Your task to perform on an android device: Open the stopwatch Image 0: 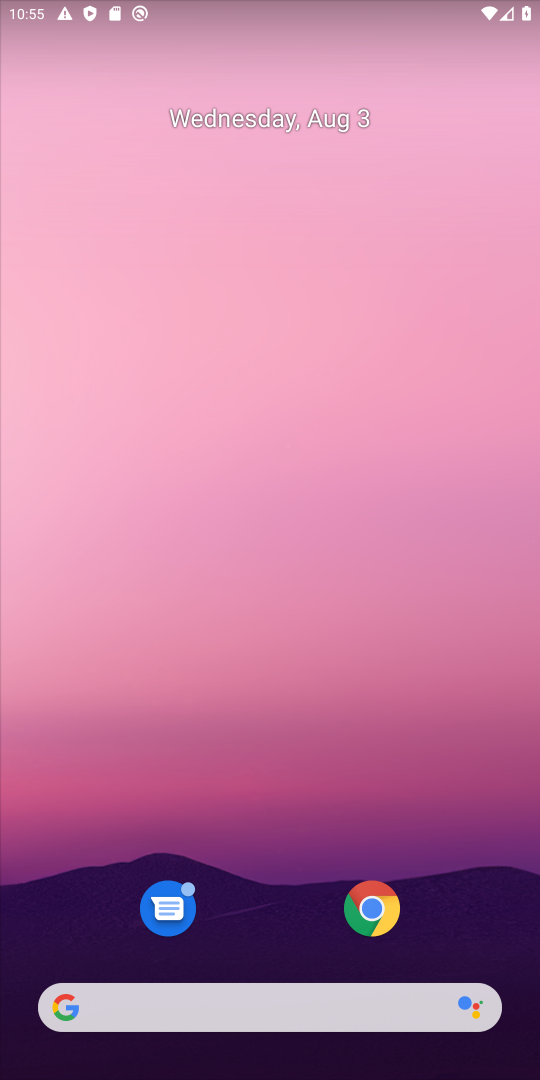
Step 0: drag from (389, 969) to (300, 136)
Your task to perform on an android device: Open the stopwatch Image 1: 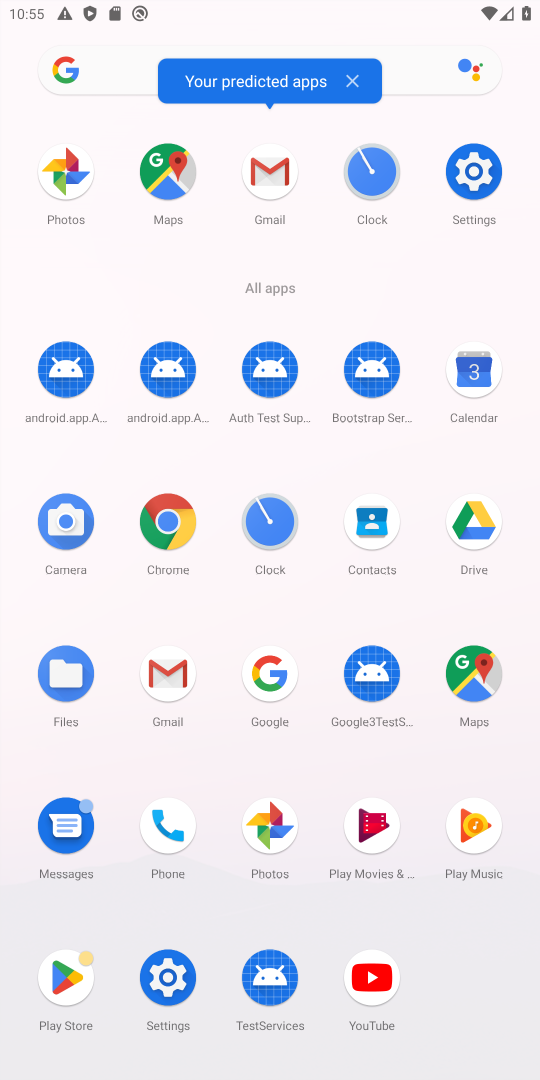
Step 1: click (277, 526)
Your task to perform on an android device: Open the stopwatch Image 2: 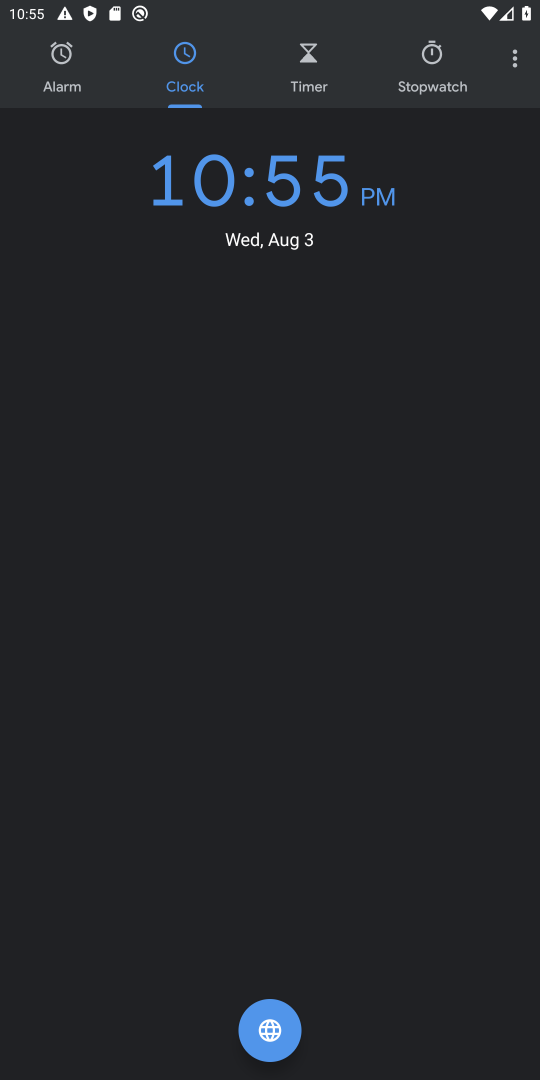
Step 2: click (420, 73)
Your task to perform on an android device: Open the stopwatch Image 3: 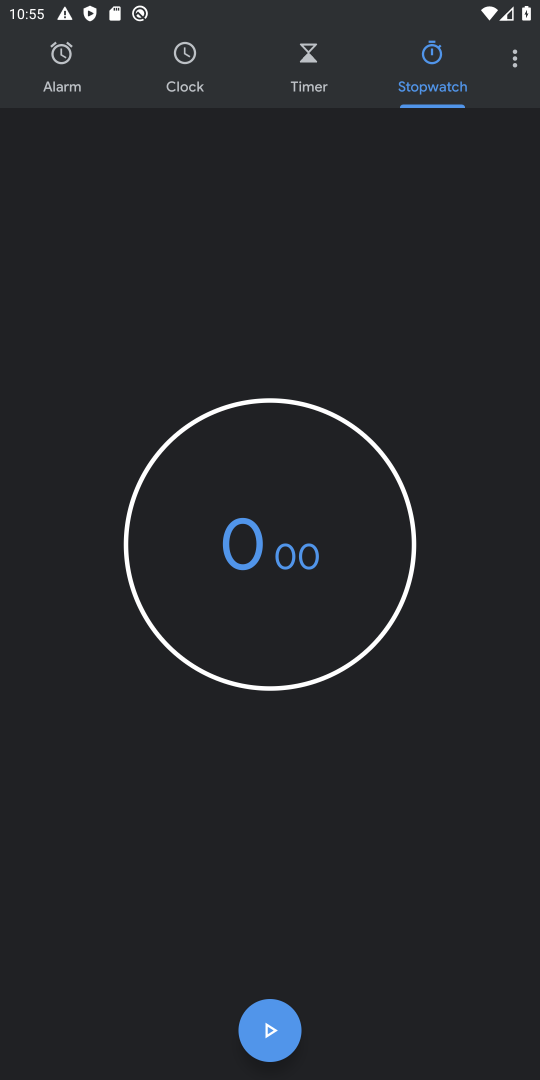
Step 3: click (271, 1024)
Your task to perform on an android device: Open the stopwatch Image 4: 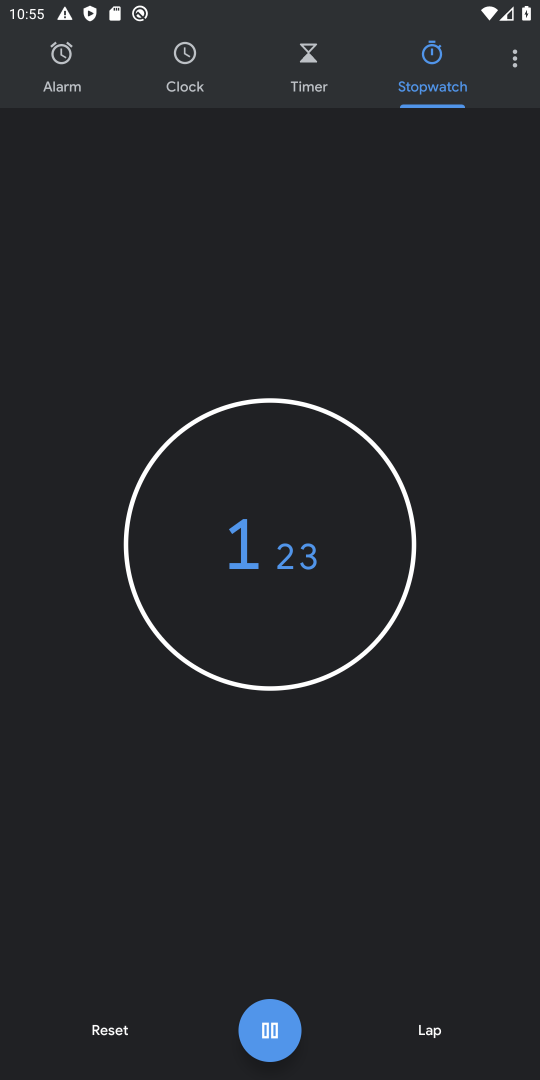
Step 4: click (271, 1024)
Your task to perform on an android device: Open the stopwatch Image 5: 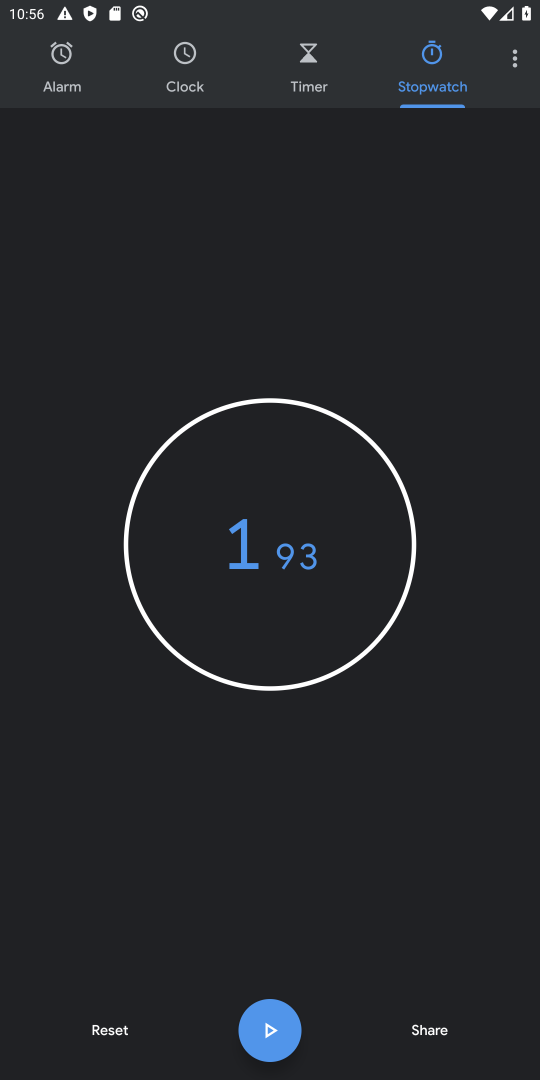
Step 5: task complete